Your task to perform on an android device: open app "Spotify: Music and Podcasts" Image 0: 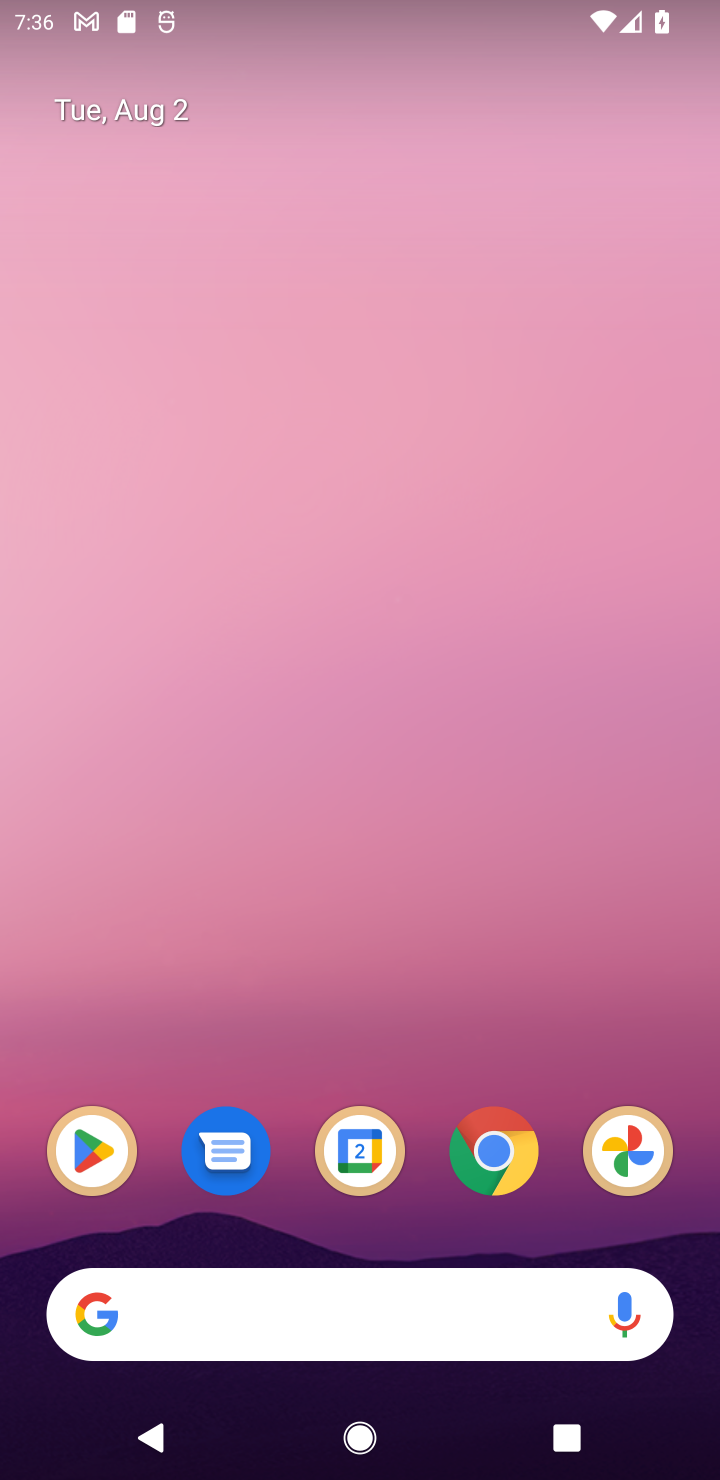
Step 0: drag from (367, 1268) to (386, 46)
Your task to perform on an android device: open app "Spotify: Music and Podcasts" Image 1: 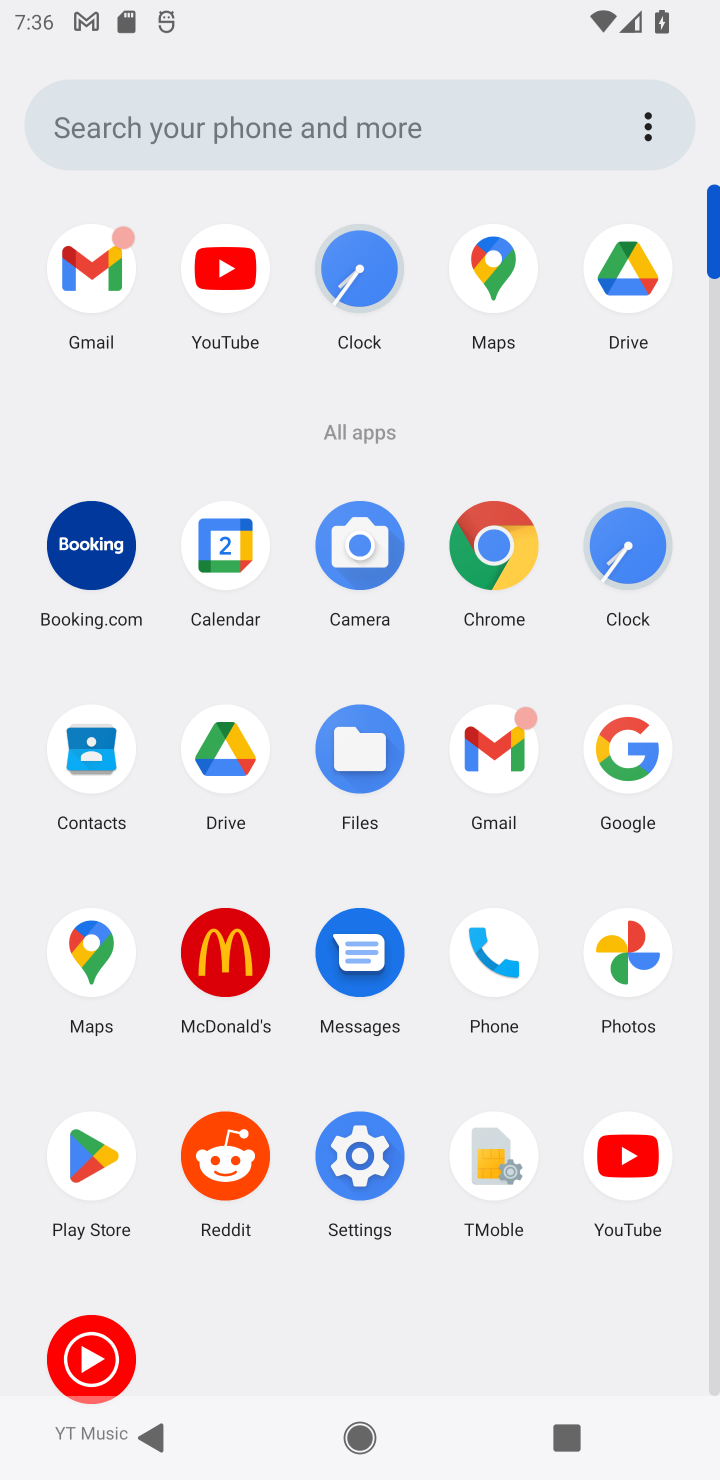
Step 1: click (99, 1150)
Your task to perform on an android device: open app "Spotify: Music and Podcasts" Image 2: 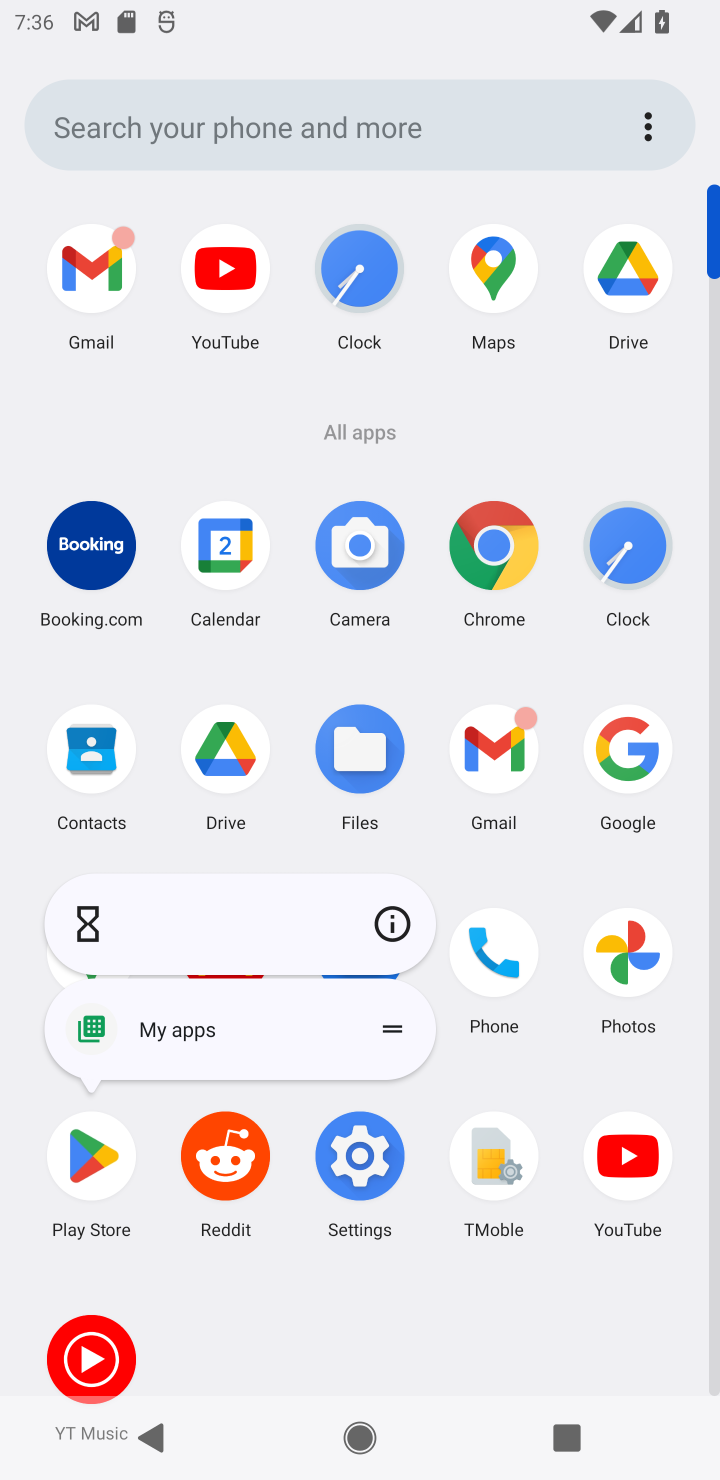
Step 2: click (97, 1148)
Your task to perform on an android device: open app "Spotify: Music and Podcasts" Image 3: 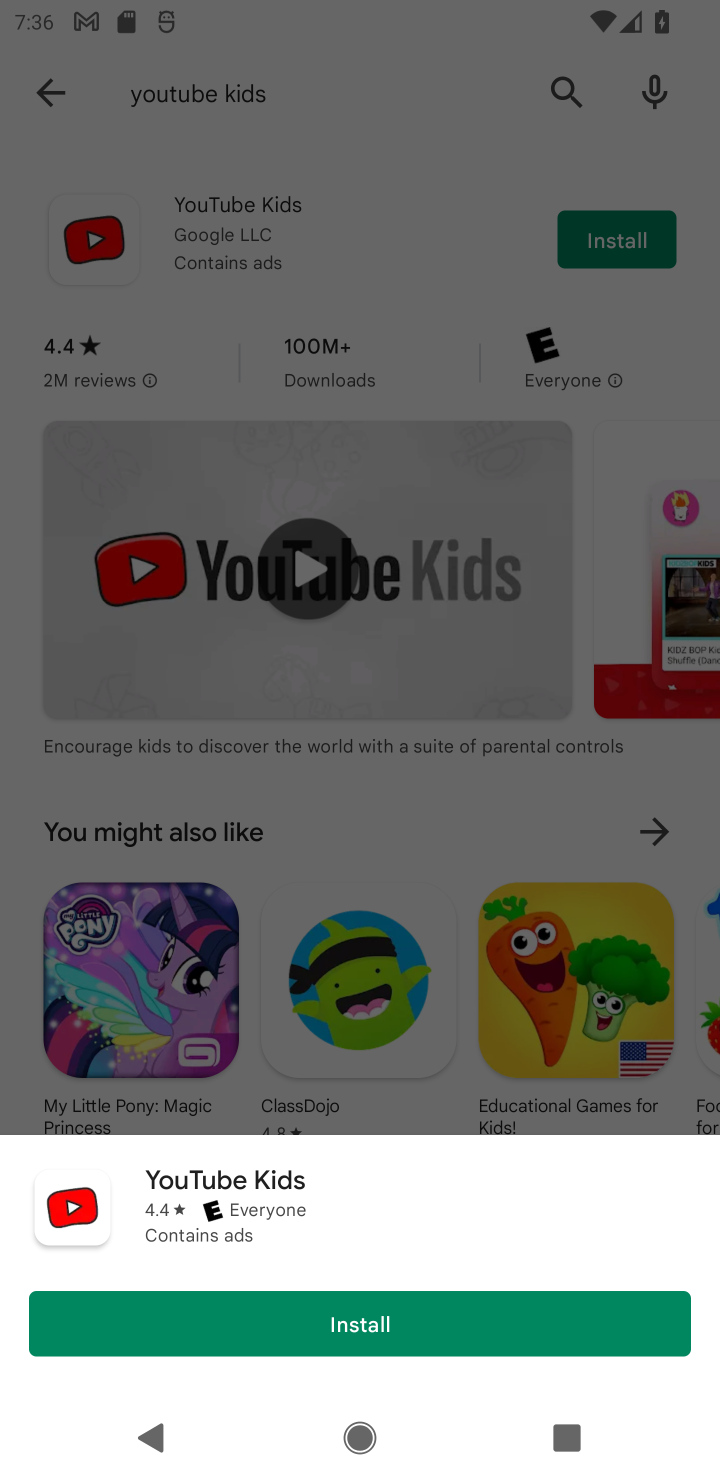
Step 3: click (55, 96)
Your task to perform on an android device: open app "Spotify: Music and Podcasts" Image 4: 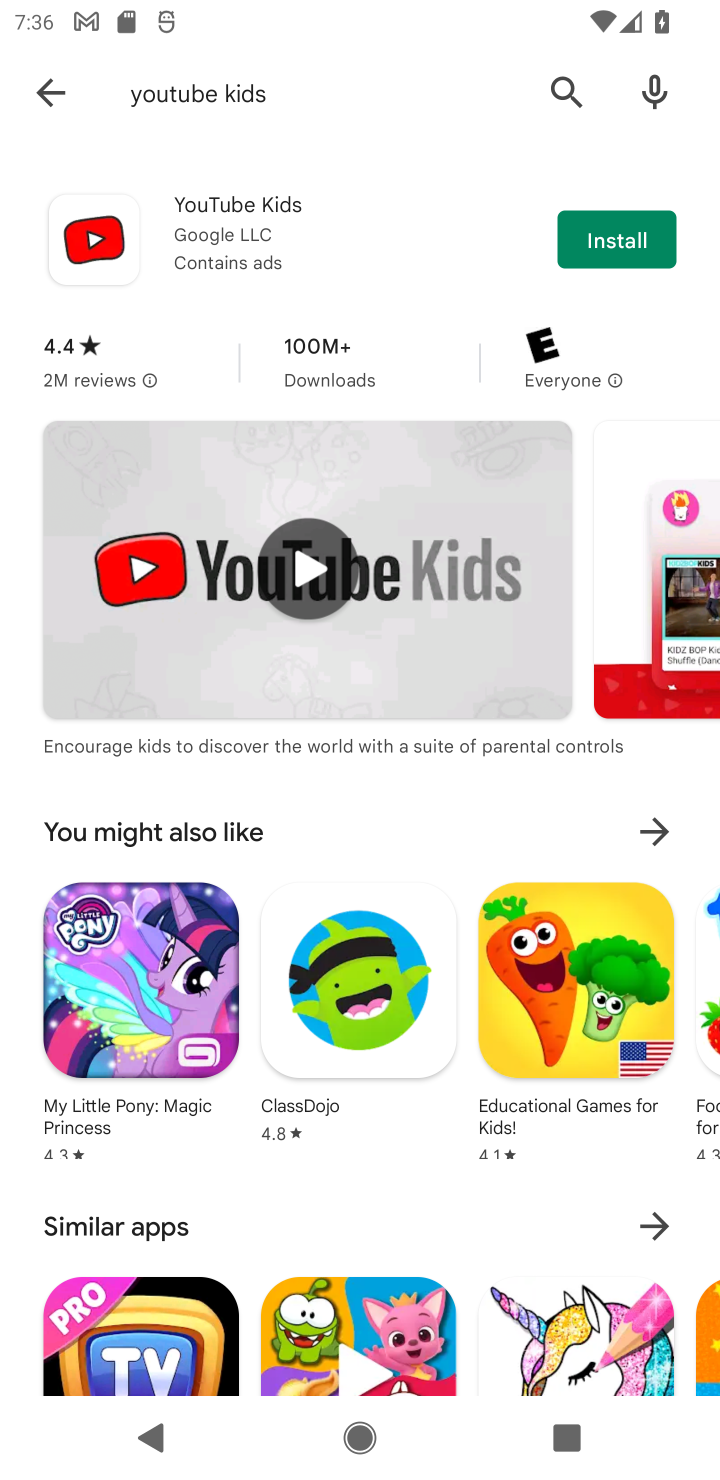
Step 4: click (43, 97)
Your task to perform on an android device: open app "Spotify: Music and Podcasts" Image 5: 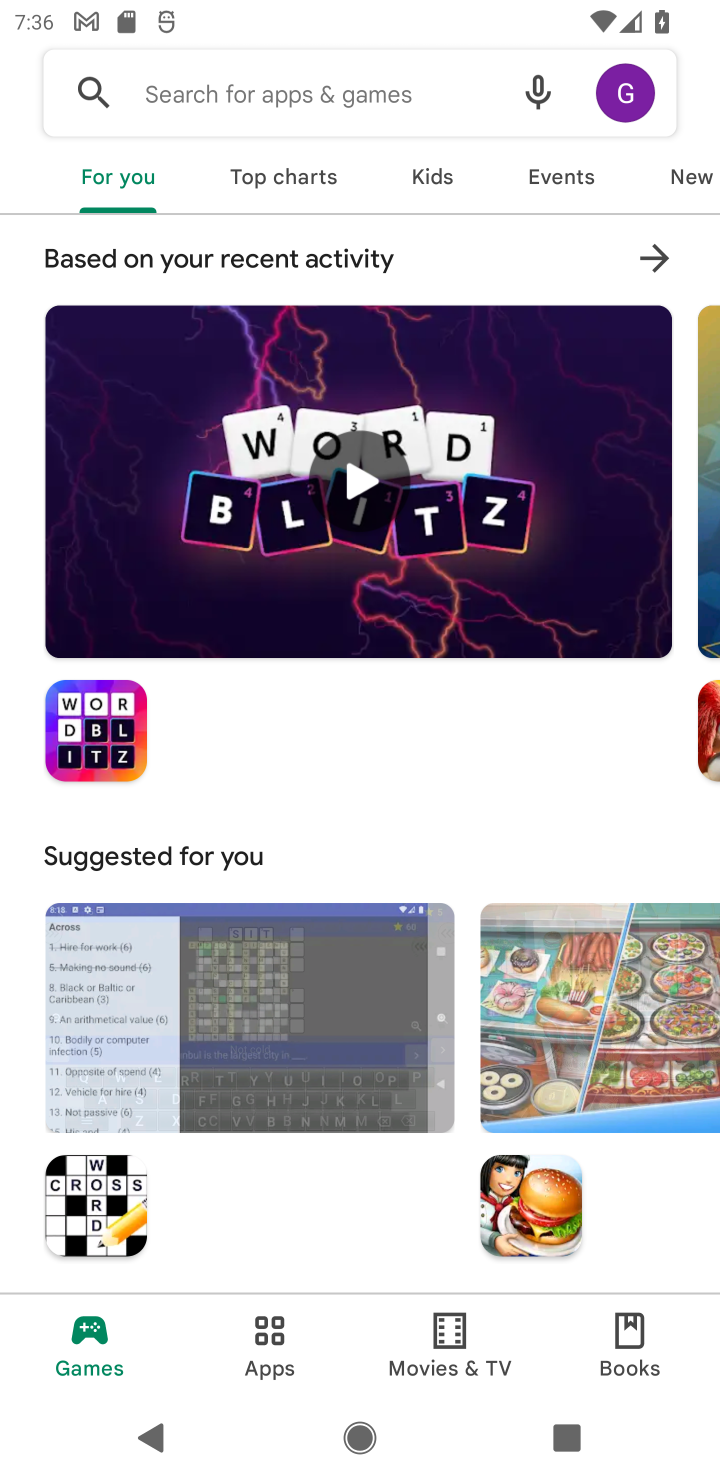
Step 5: click (309, 87)
Your task to perform on an android device: open app "Spotify: Music and Podcasts" Image 6: 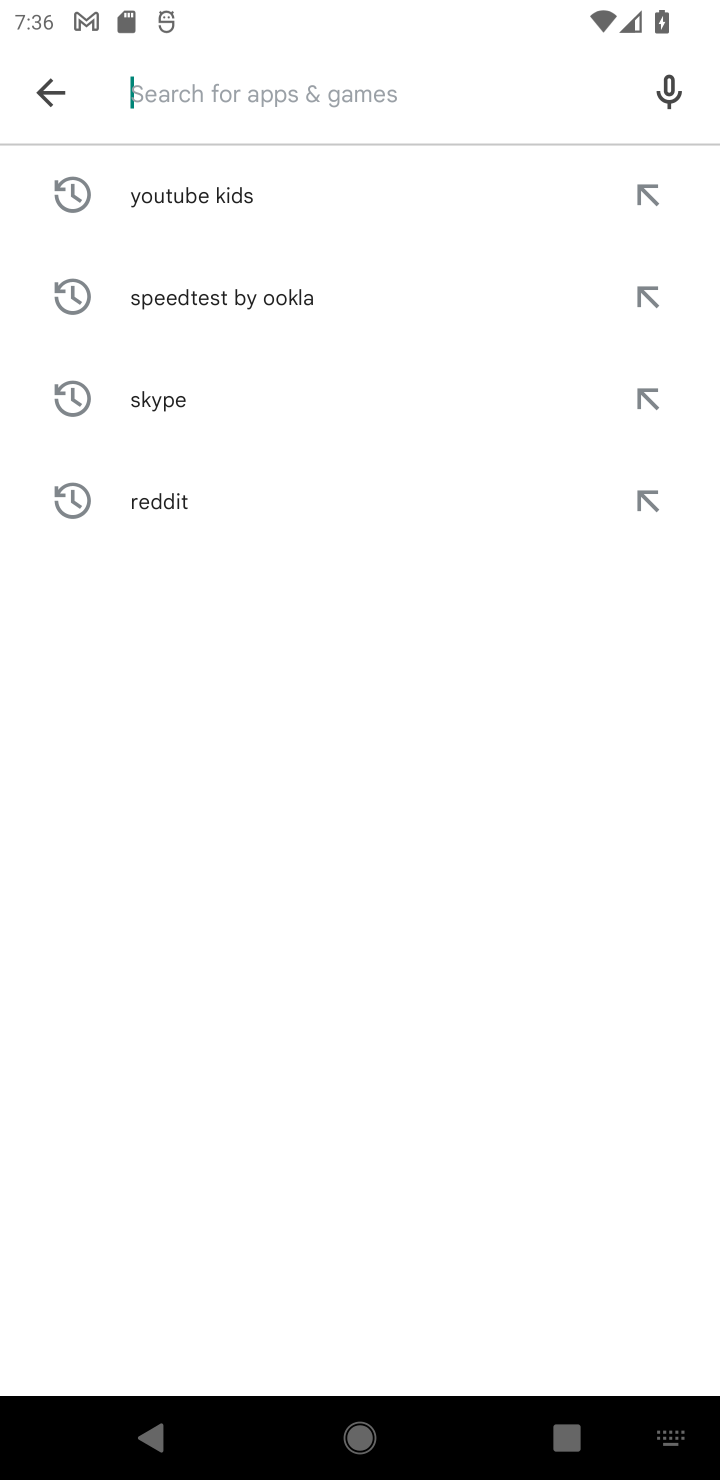
Step 6: type "Spotify"
Your task to perform on an android device: open app "Spotify: Music and Podcasts" Image 7: 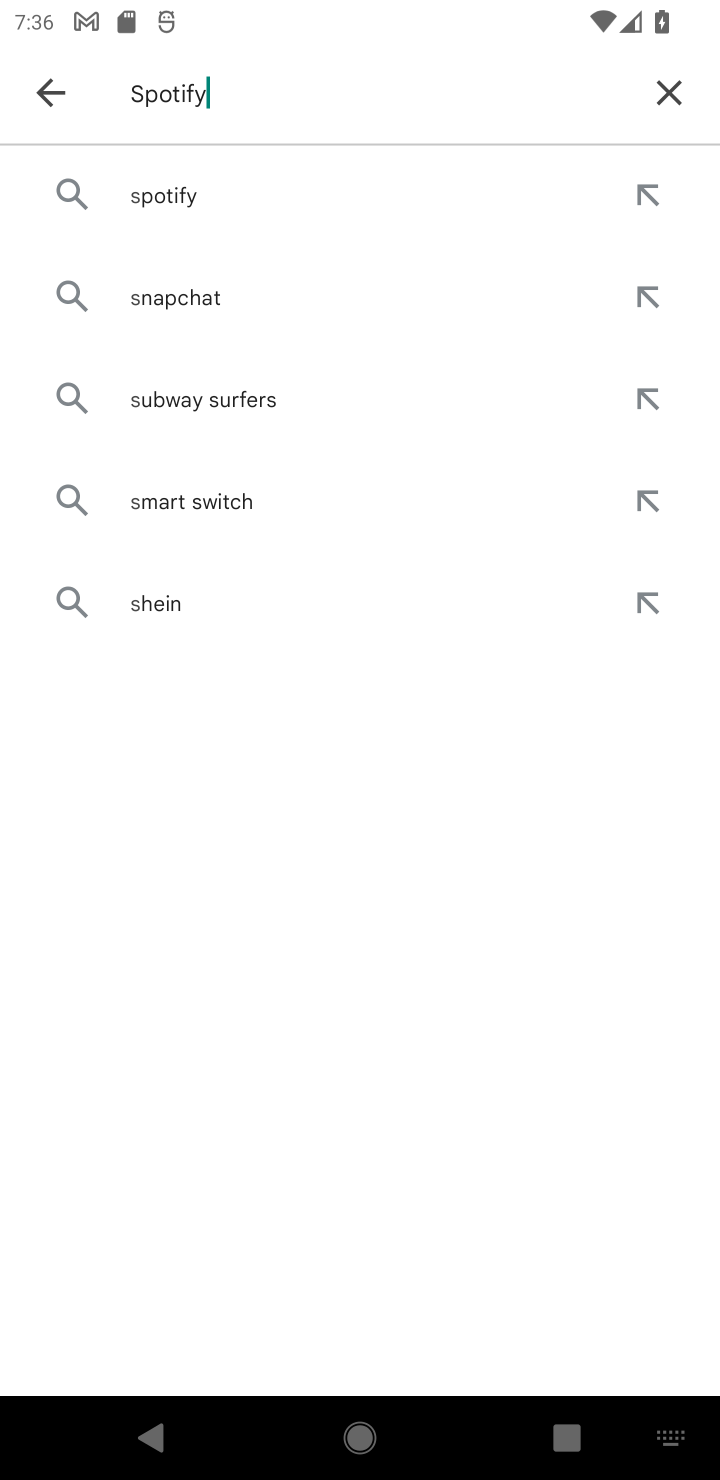
Step 7: type ""
Your task to perform on an android device: open app "Spotify: Music and Podcasts" Image 8: 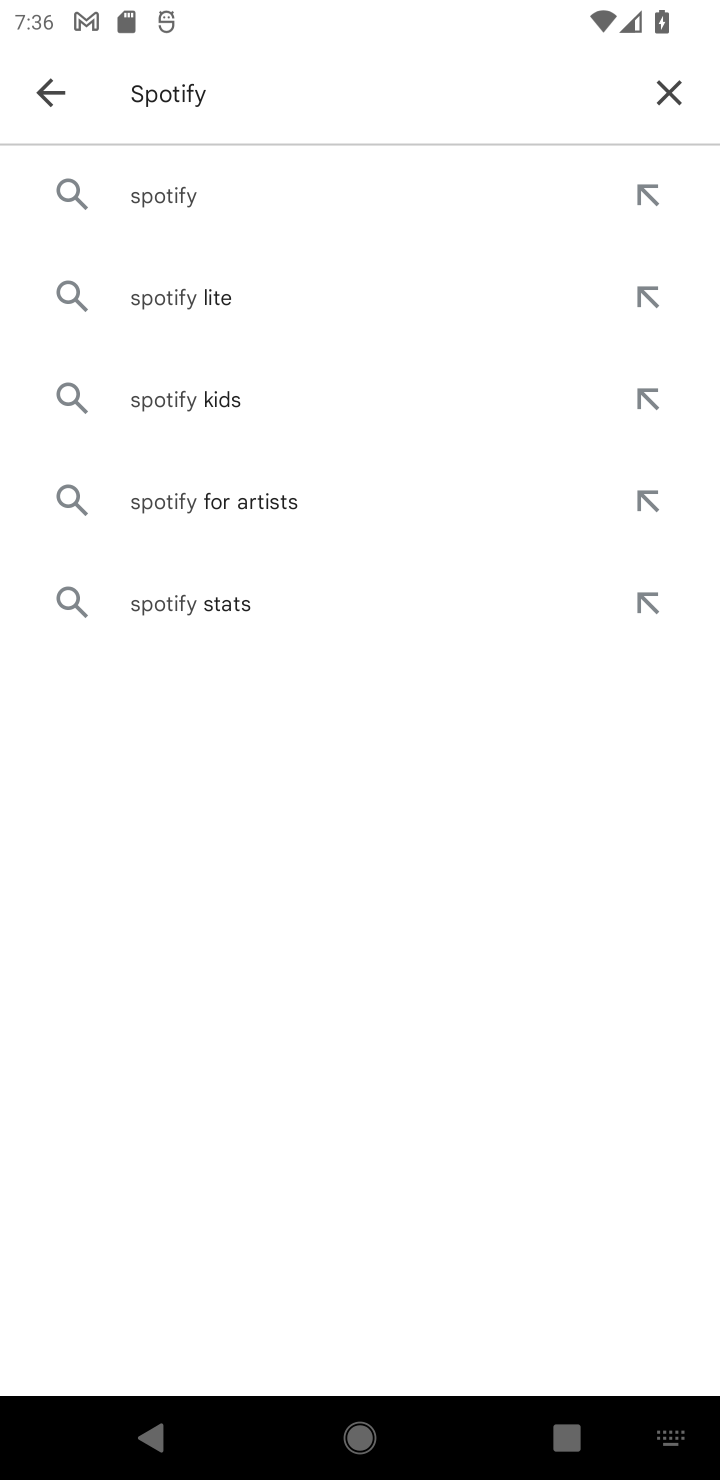
Step 8: click (155, 191)
Your task to perform on an android device: open app "Spotify: Music and Podcasts" Image 9: 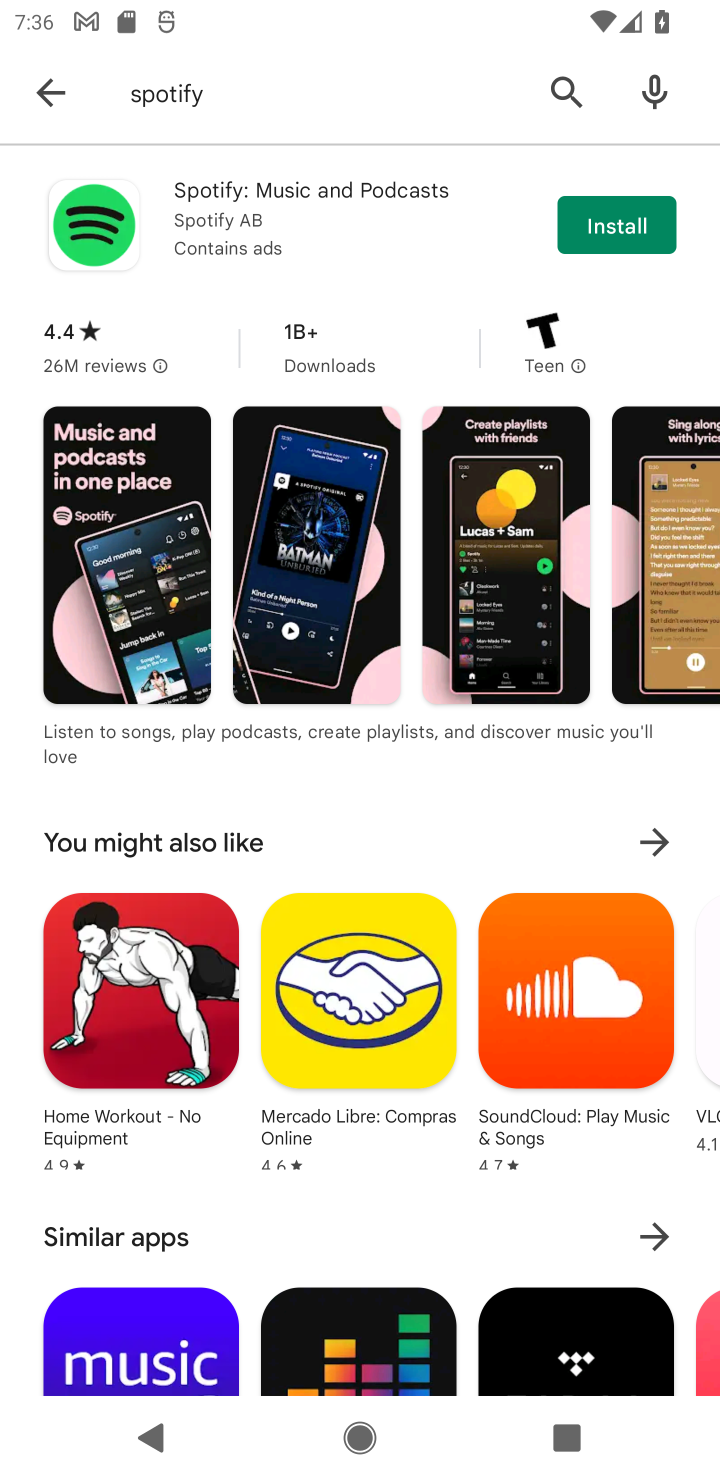
Step 9: click (358, 215)
Your task to perform on an android device: open app "Spotify: Music and Podcasts" Image 10: 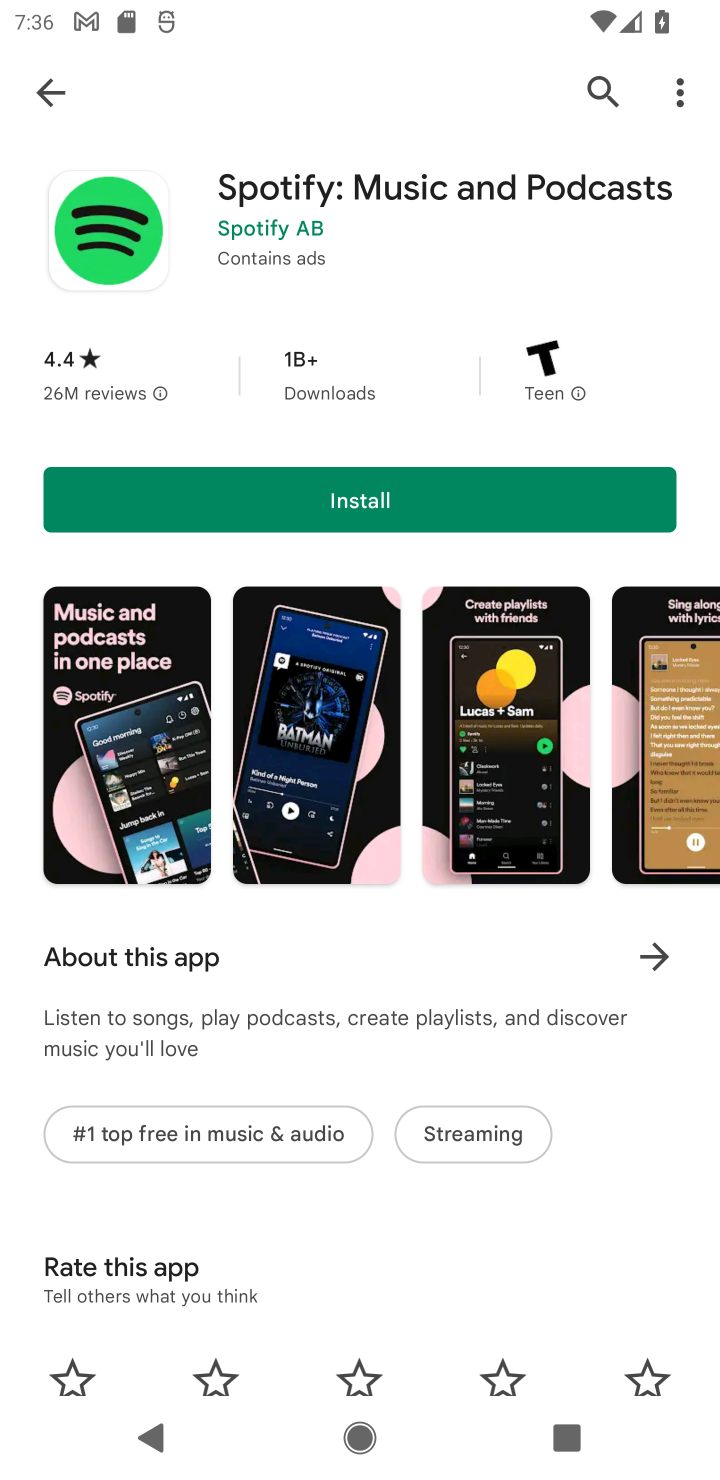
Step 10: task complete